Your task to perform on an android device: Open maps Image 0: 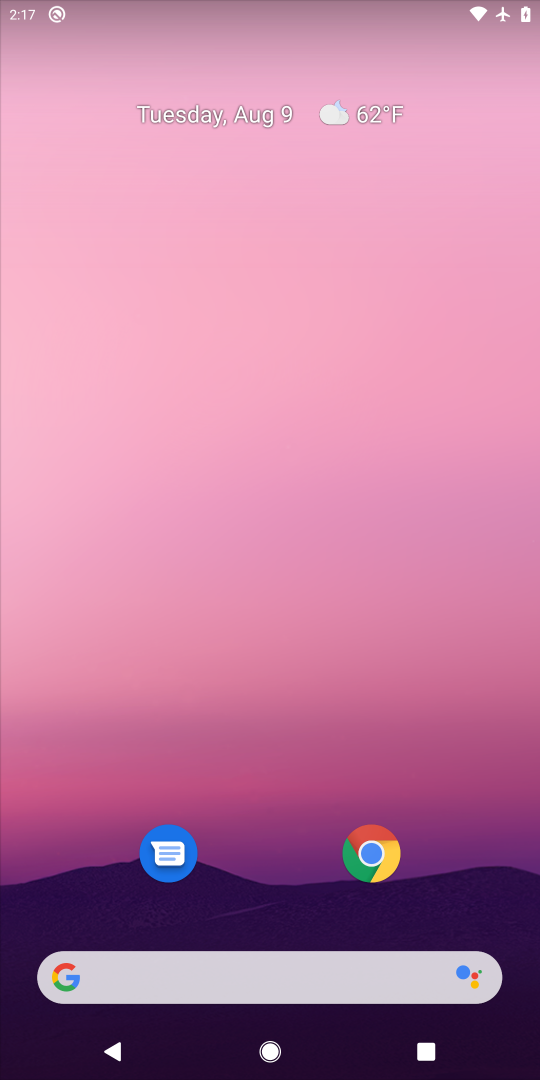
Step 0: press home button
Your task to perform on an android device: Open maps Image 1: 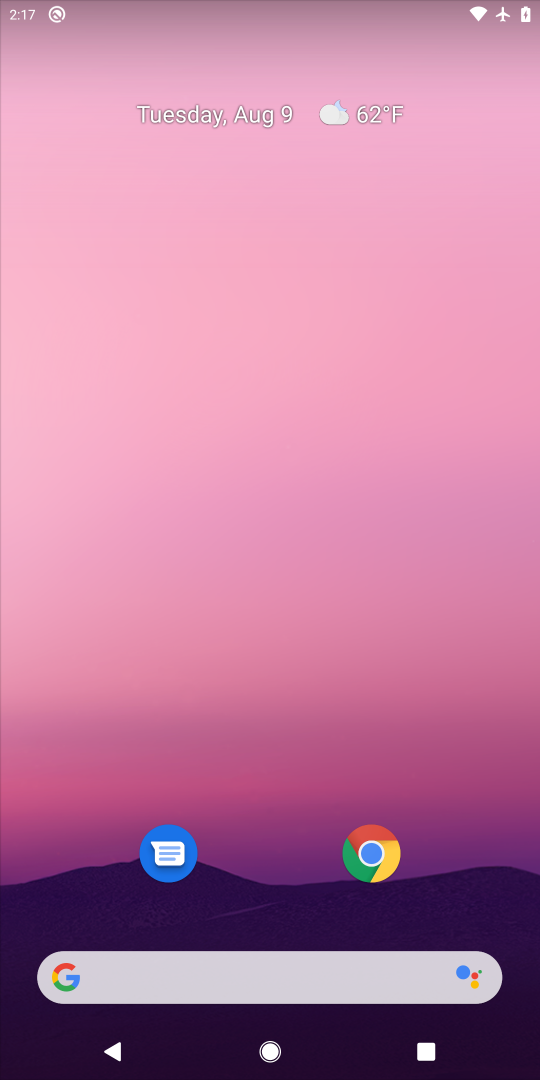
Step 1: drag from (245, 873) to (350, 141)
Your task to perform on an android device: Open maps Image 2: 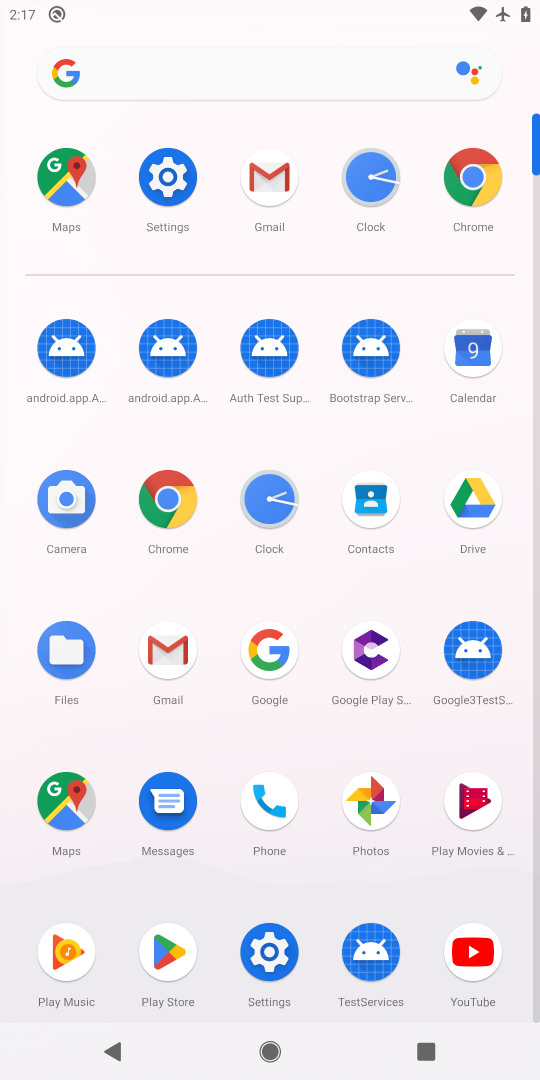
Step 2: click (70, 801)
Your task to perform on an android device: Open maps Image 3: 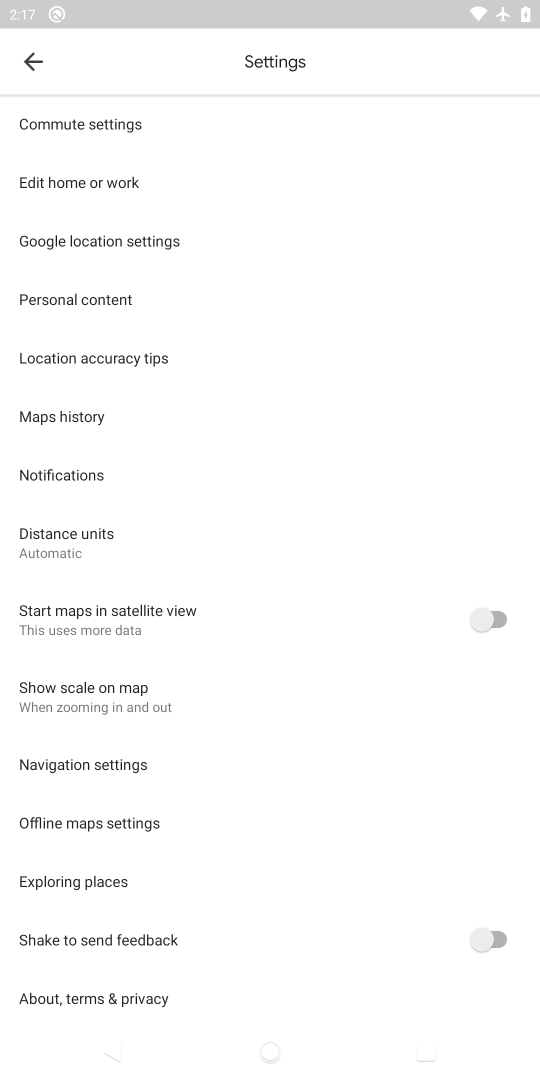
Step 3: click (33, 56)
Your task to perform on an android device: Open maps Image 4: 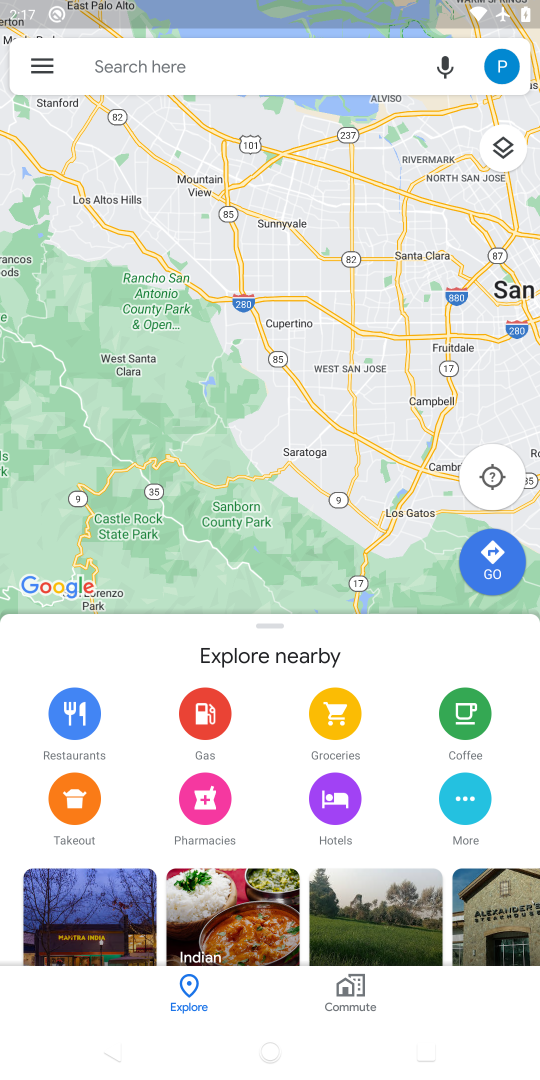
Step 4: task complete